Your task to perform on an android device: Open accessibility settings Image 0: 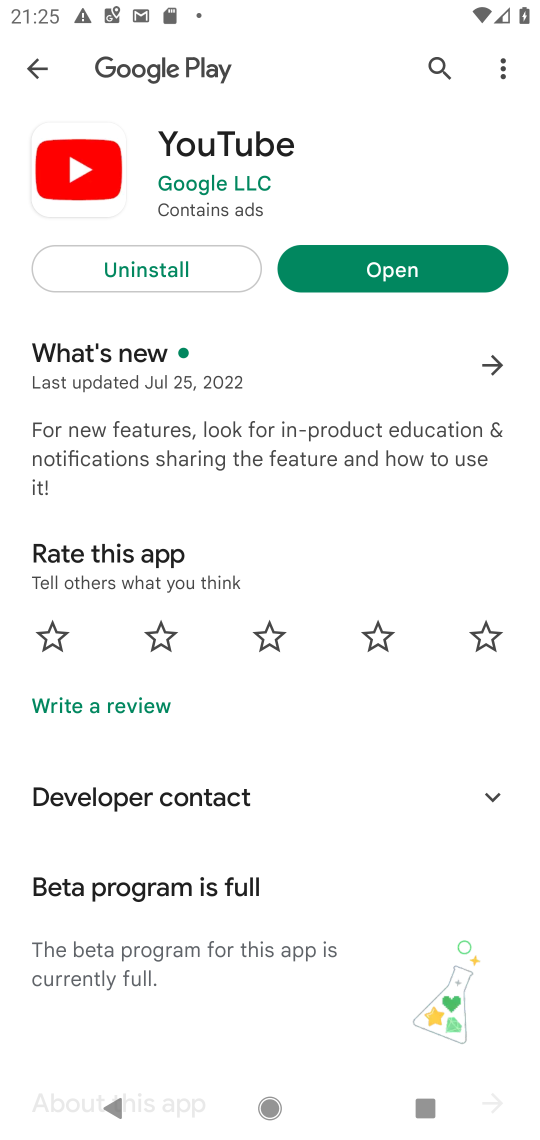
Step 0: press home button
Your task to perform on an android device: Open accessibility settings Image 1: 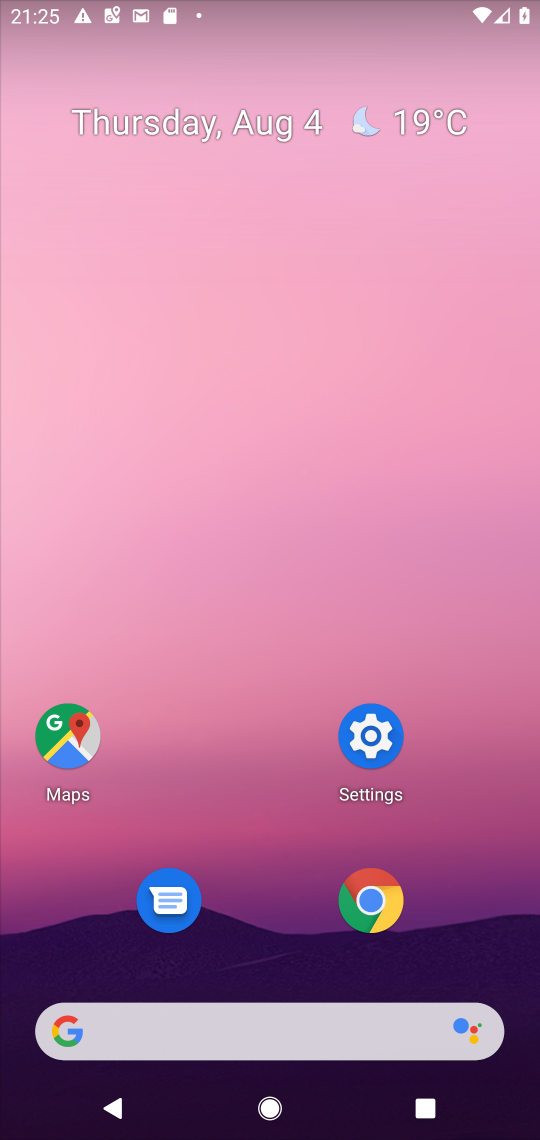
Step 1: click (363, 730)
Your task to perform on an android device: Open accessibility settings Image 2: 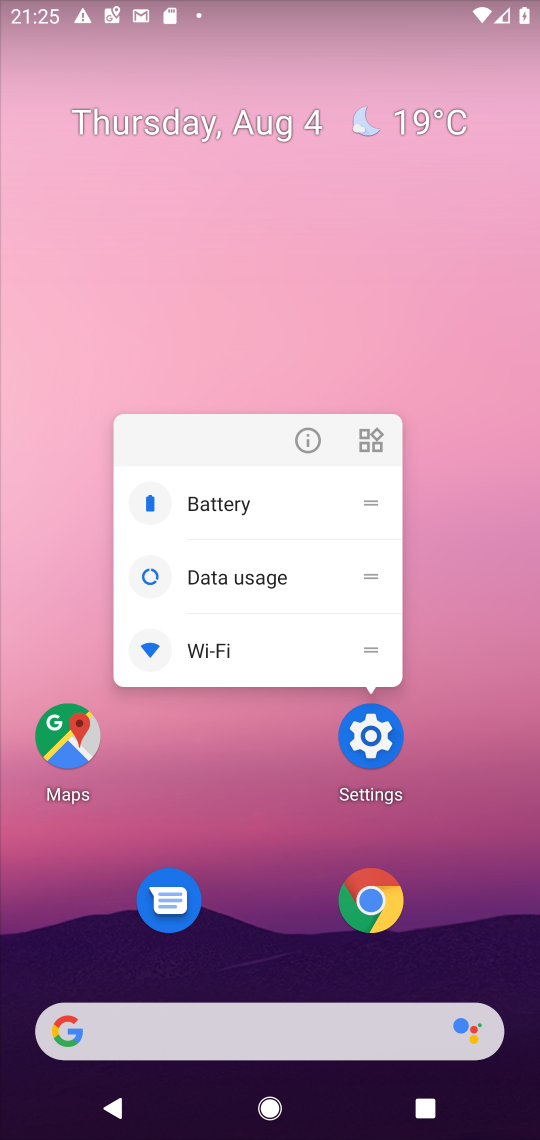
Step 2: click (374, 731)
Your task to perform on an android device: Open accessibility settings Image 3: 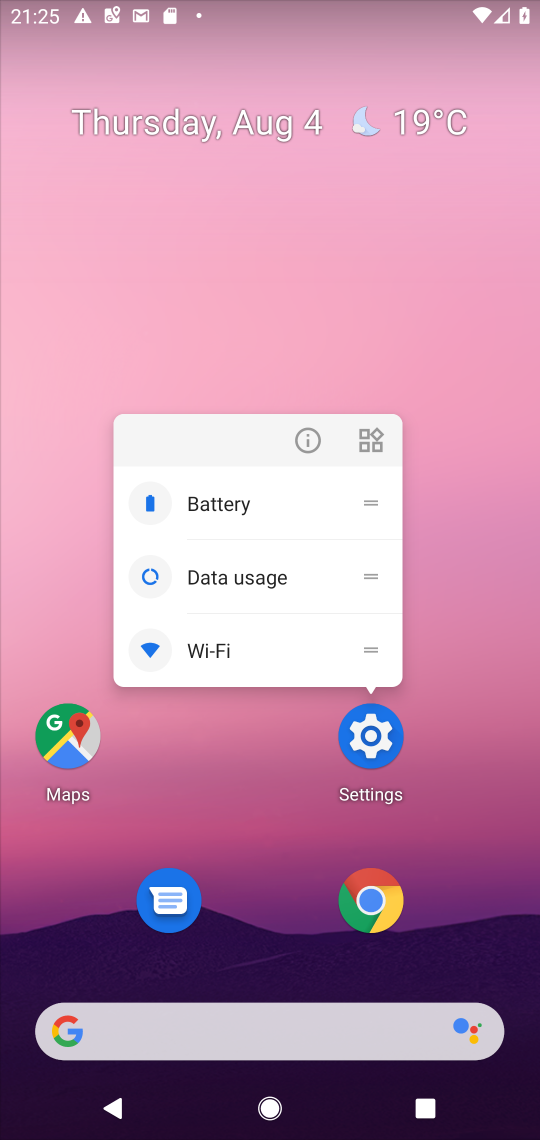
Step 3: click (374, 734)
Your task to perform on an android device: Open accessibility settings Image 4: 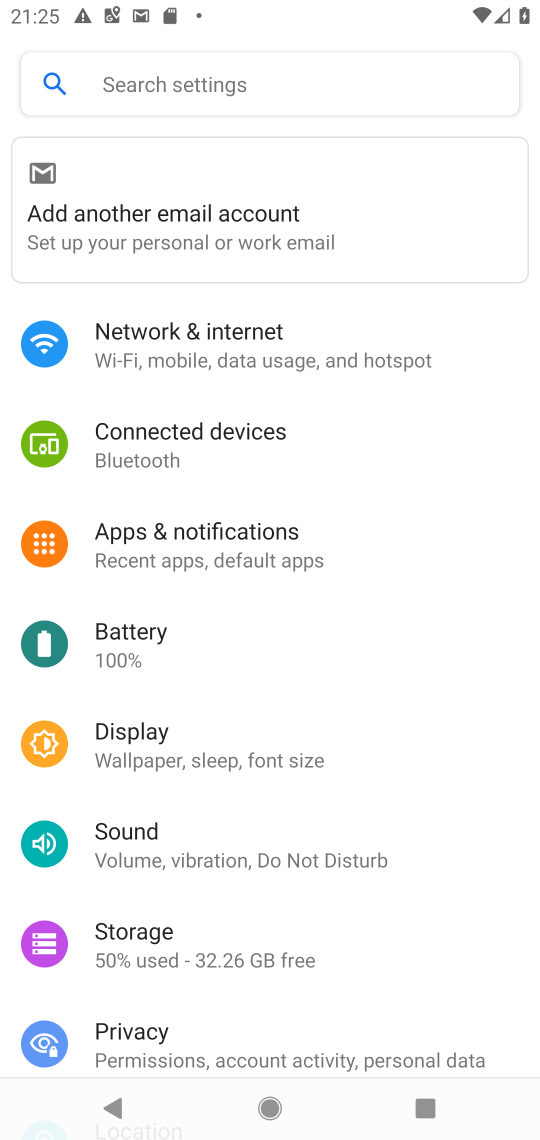
Step 4: drag from (330, 978) to (401, 297)
Your task to perform on an android device: Open accessibility settings Image 5: 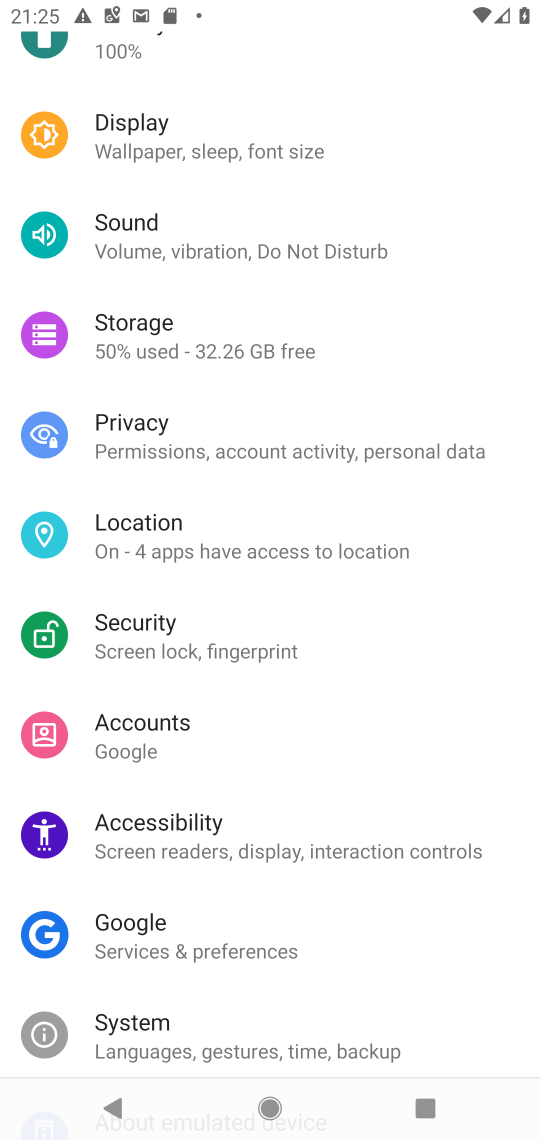
Step 5: click (173, 833)
Your task to perform on an android device: Open accessibility settings Image 6: 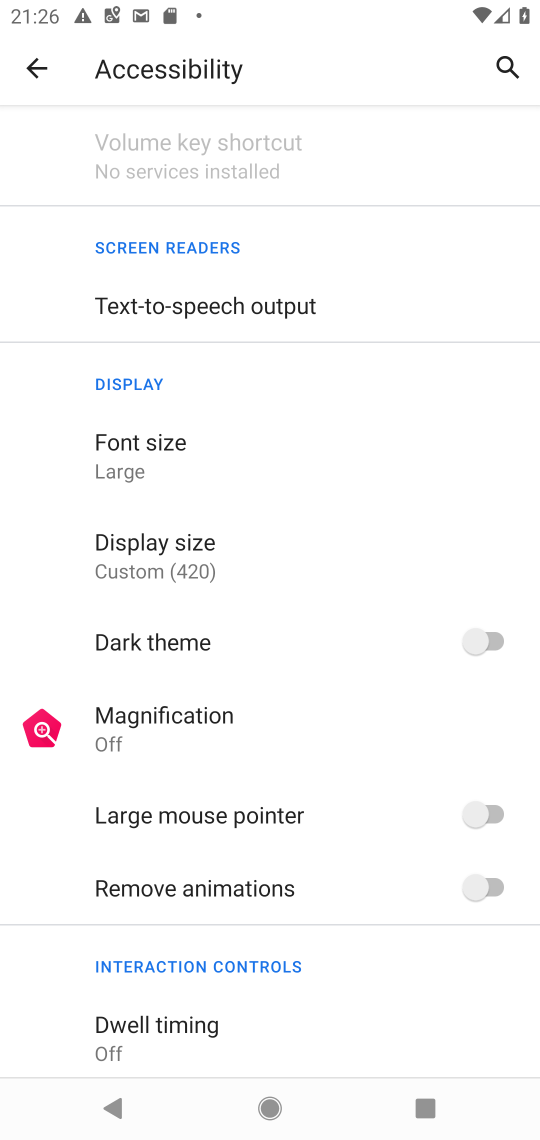
Step 6: task complete